Your task to perform on an android device: Add "logitech g903" to the cart on ebay.com, then select checkout. Image 0: 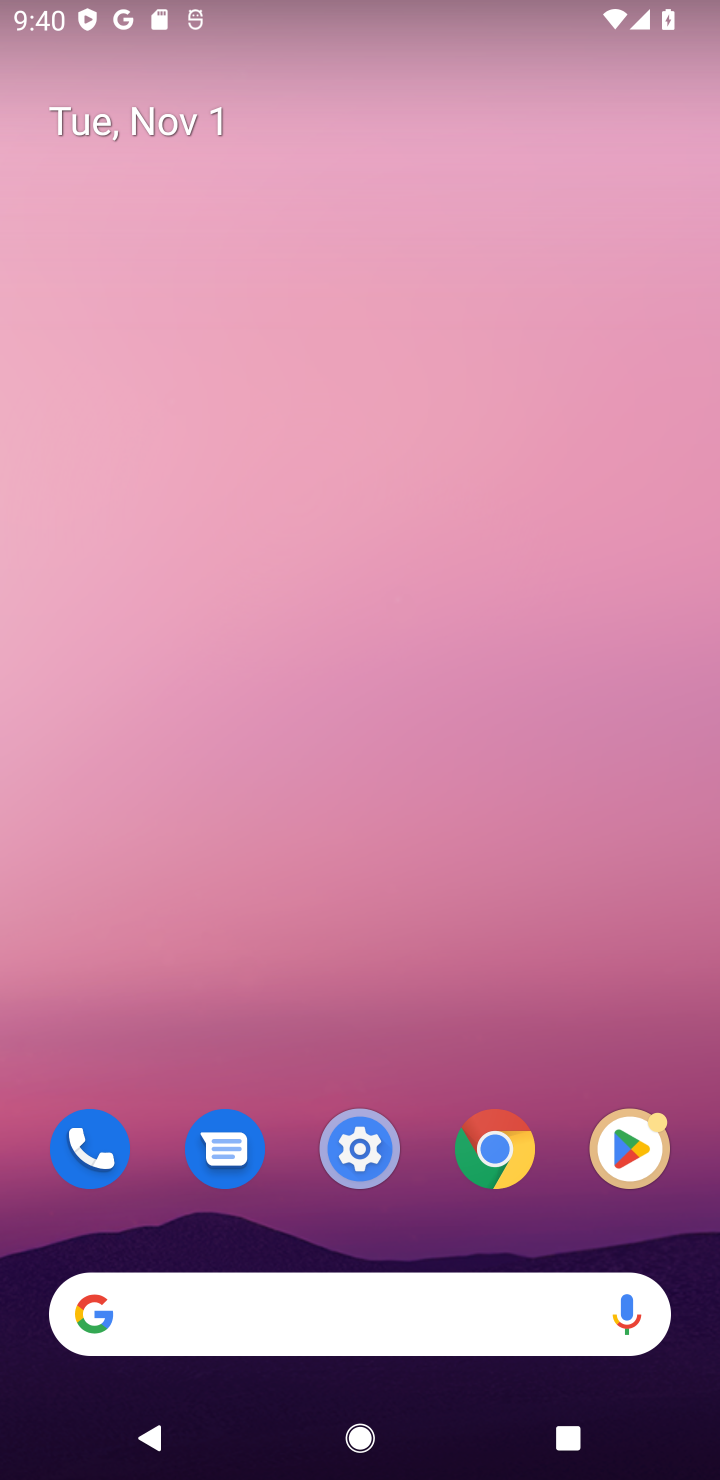
Step 0: press home button
Your task to perform on an android device: Add "logitech g903" to the cart on ebay.com, then select checkout. Image 1: 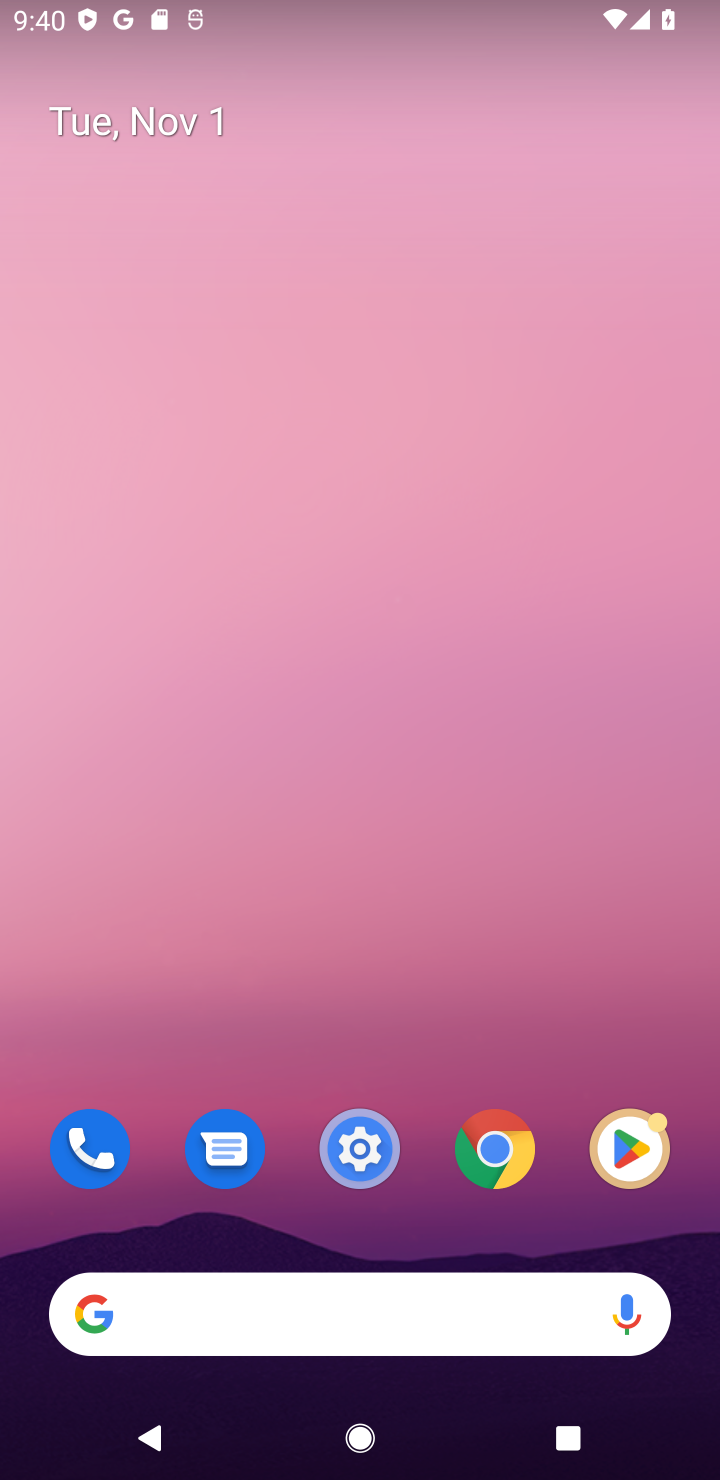
Step 1: click (140, 1320)
Your task to perform on an android device: Add "logitech g903" to the cart on ebay.com, then select checkout. Image 2: 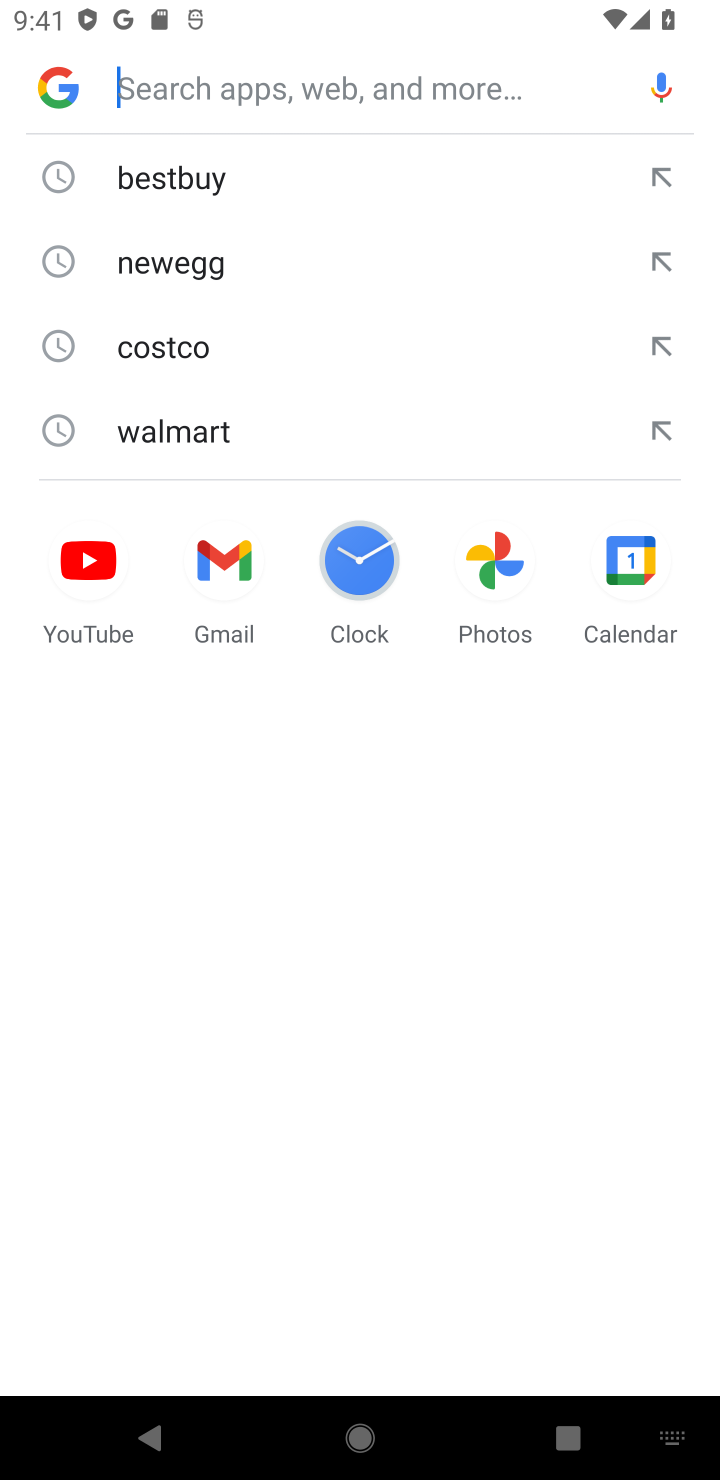
Step 2: type "ebay.com"
Your task to perform on an android device: Add "logitech g903" to the cart on ebay.com, then select checkout. Image 3: 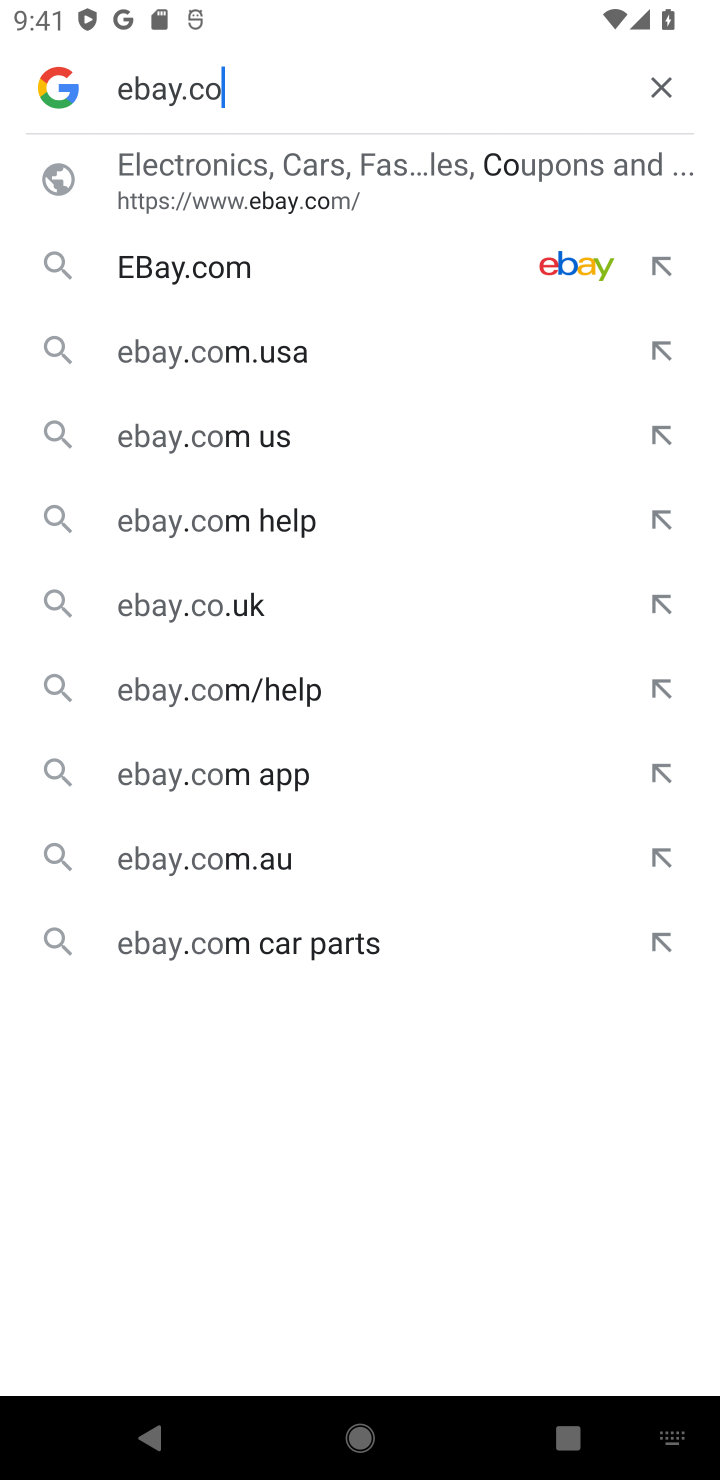
Step 3: press enter
Your task to perform on an android device: Add "logitech g903" to the cart on ebay.com, then select checkout. Image 4: 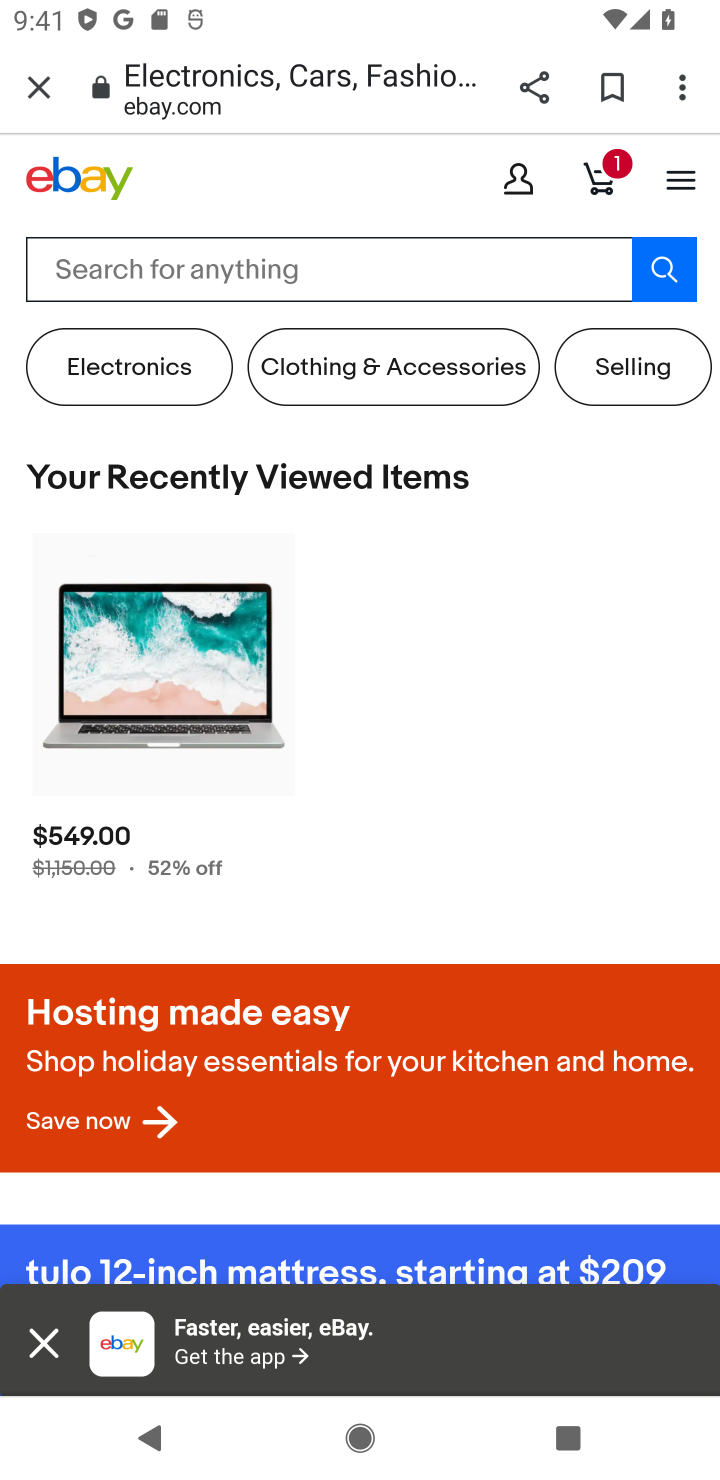
Step 4: click (95, 254)
Your task to perform on an android device: Add "logitech g903" to the cart on ebay.com, then select checkout. Image 5: 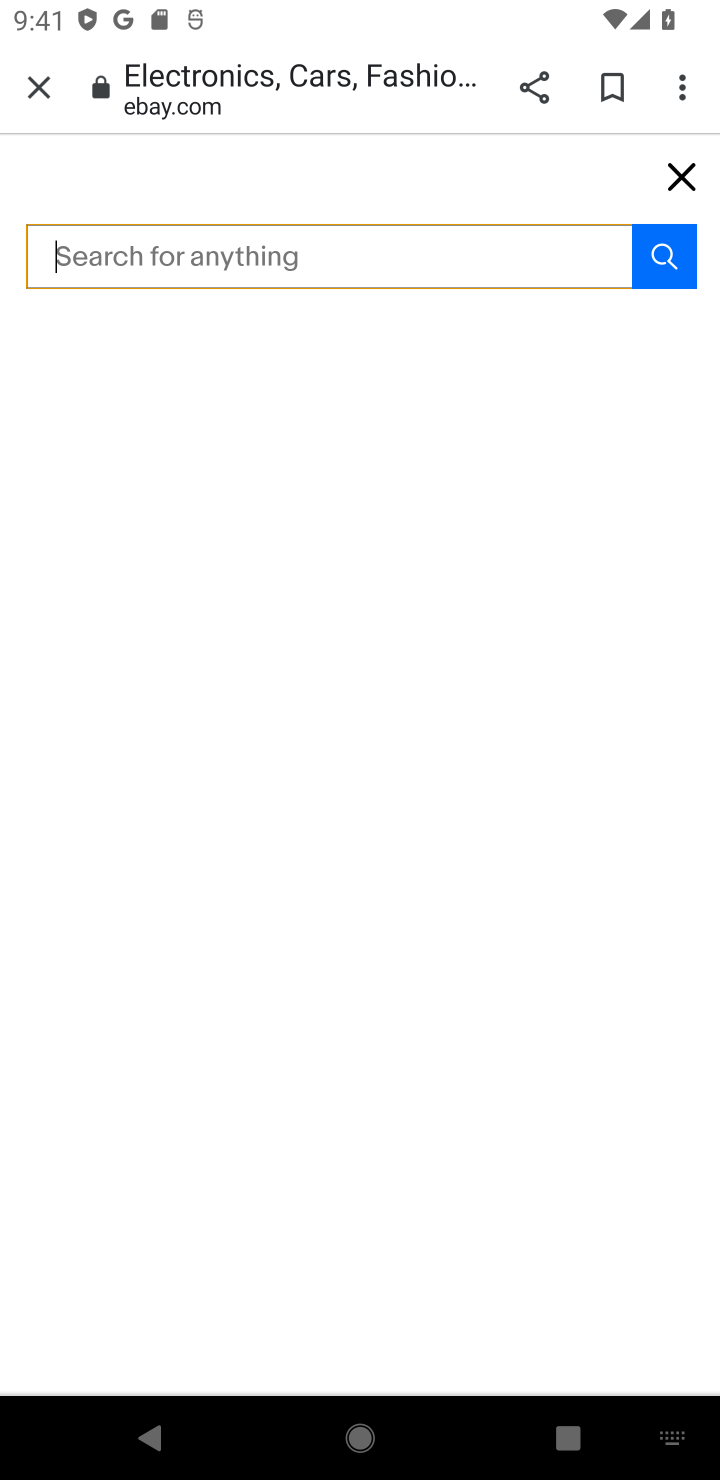
Step 5: type "logitech g903"
Your task to perform on an android device: Add "logitech g903" to the cart on ebay.com, then select checkout. Image 6: 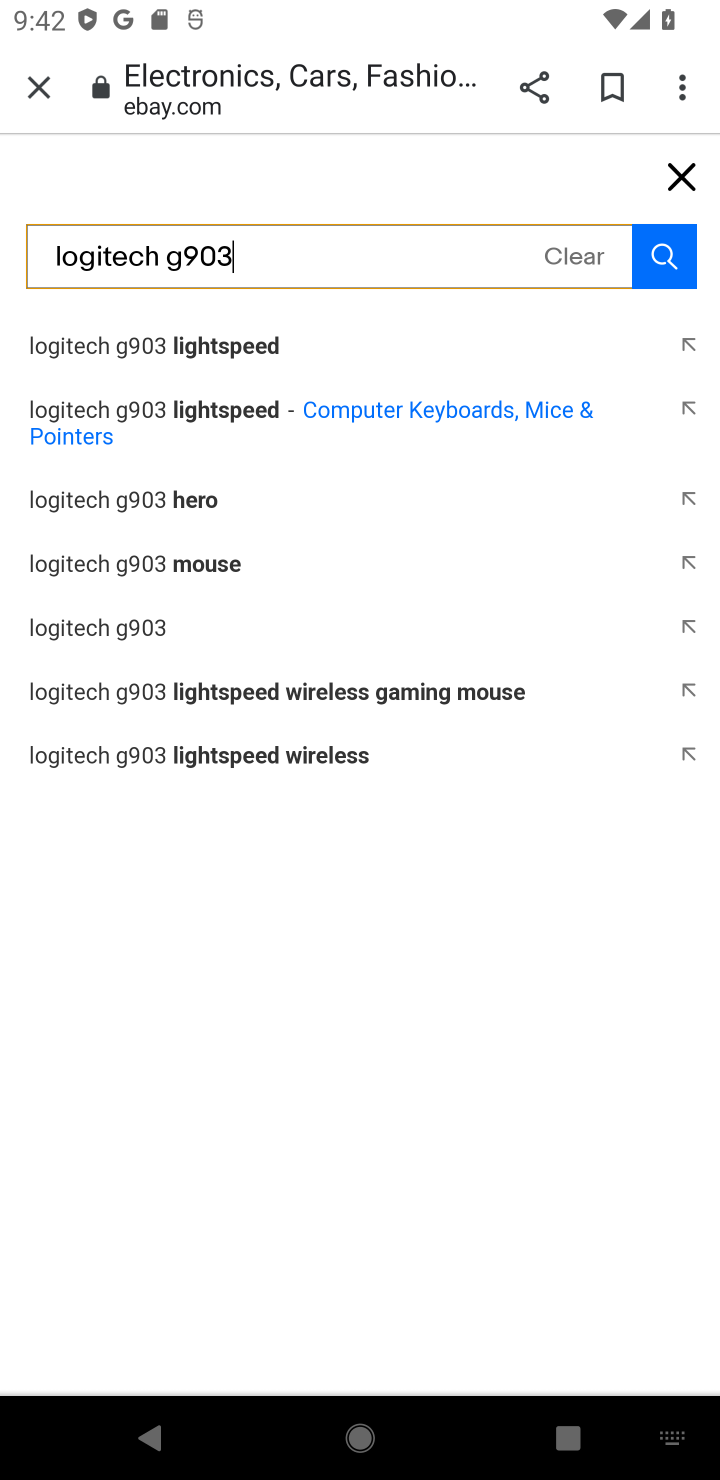
Step 6: press enter
Your task to perform on an android device: Add "logitech g903" to the cart on ebay.com, then select checkout. Image 7: 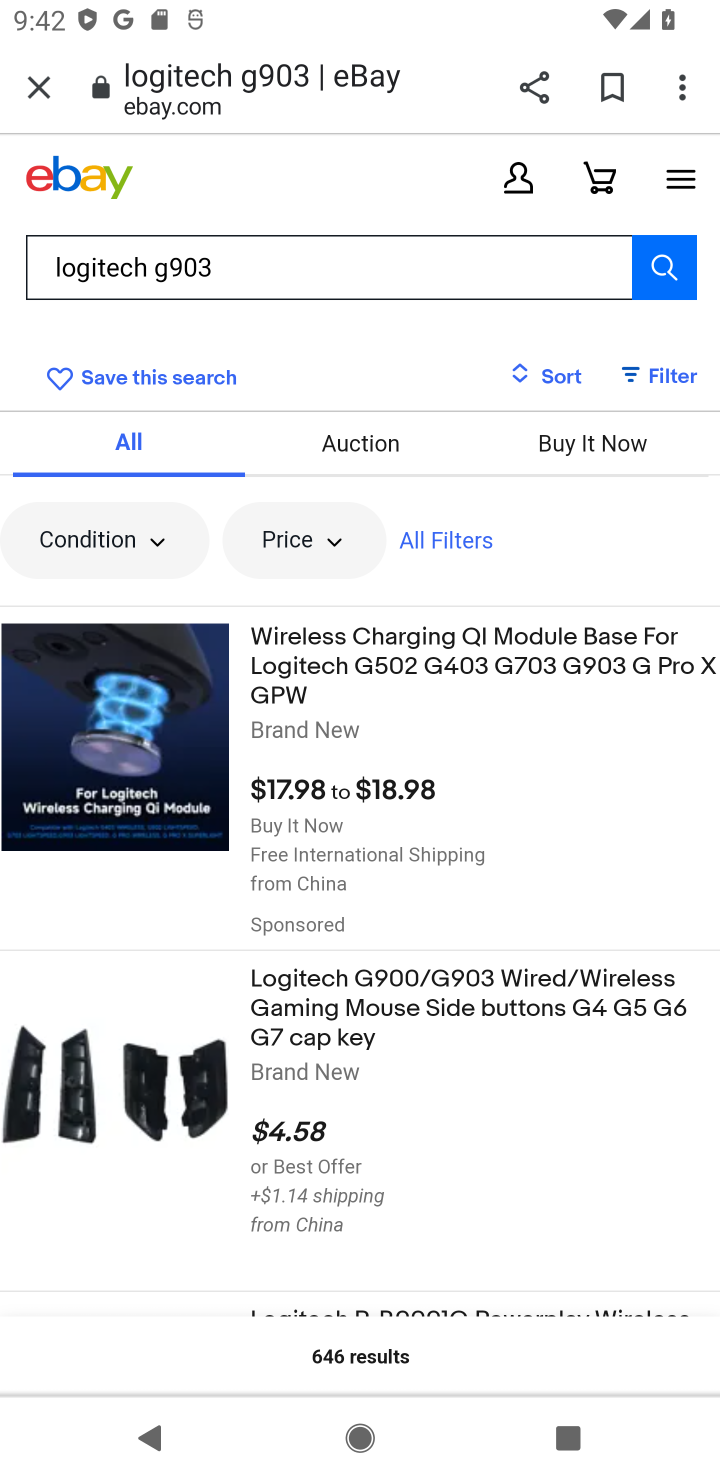
Step 7: task complete